Your task to perform on an android device: Open Wikipedia Image 0: 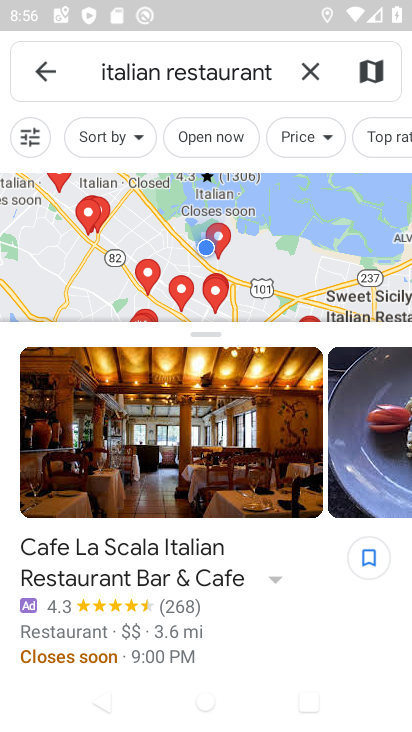
Step 0: press home button
Your task to perform on an android device: Open Wikipedia Image 1: 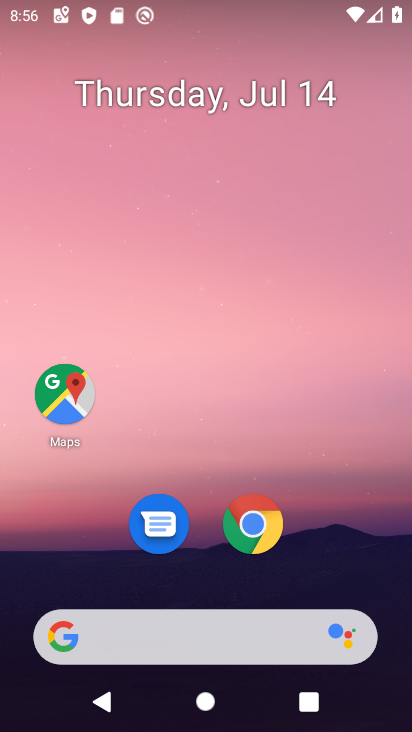
Step 1: drag from (317, 514) to (305, 108)
Your task to perform on an android device: Open Wikipedia Image 2: 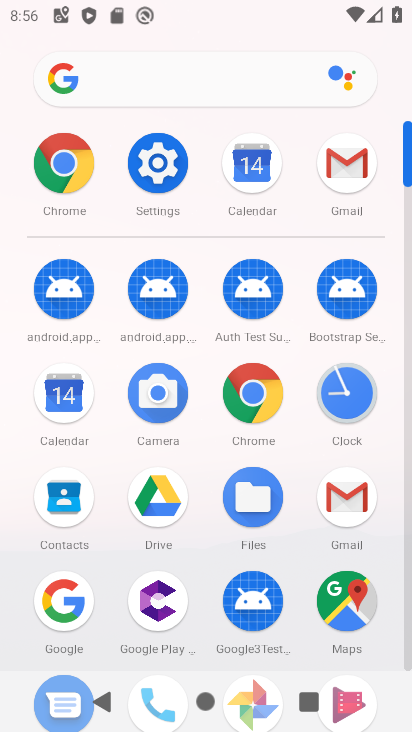
Step 2: click (85, 154)
Your task to perform on an android device: Open Wikipedia Image 3: 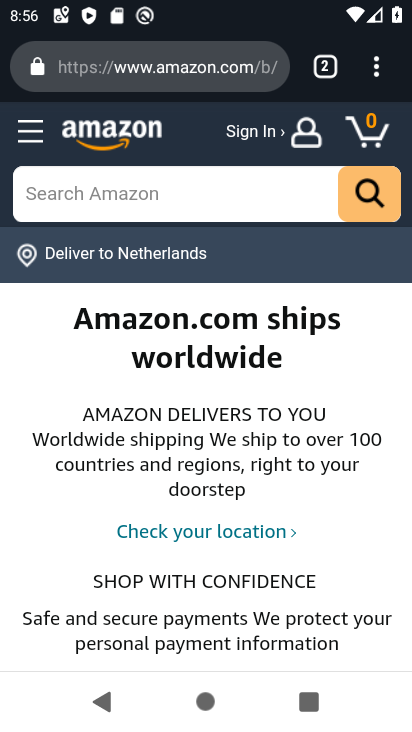
Step 3: click (379, 71)
Your task to perform on an android device: Open Wikipedia Image 4: 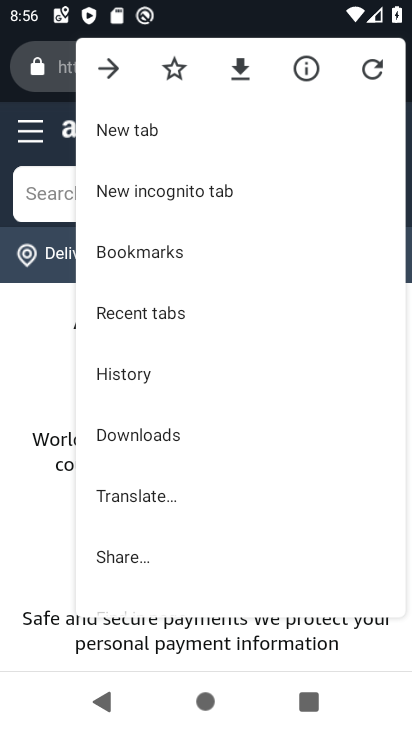
Step 4: click (228, 124)
Your task to perform on an android device: Open Wikipedia Image 5: 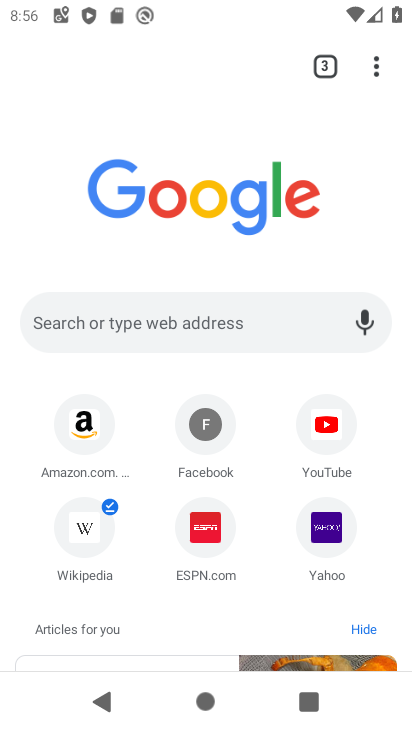
Step 5: click (84, 523)
Your task to perform on an android device: Open Wikipedia Image 6: 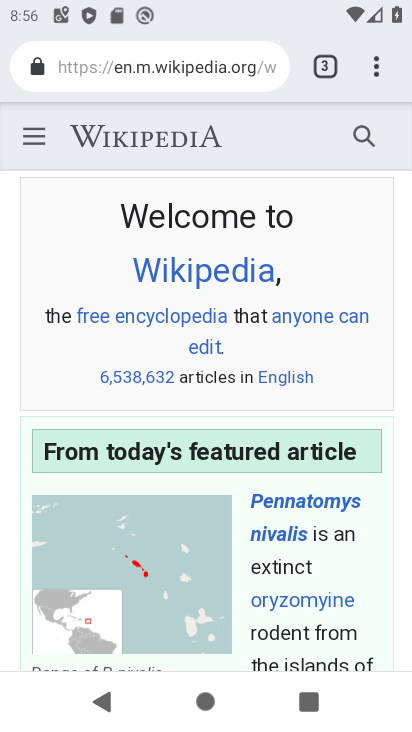
Step 6: task complete